Your task to perform on an android device: change alarm snooze length Image 0: 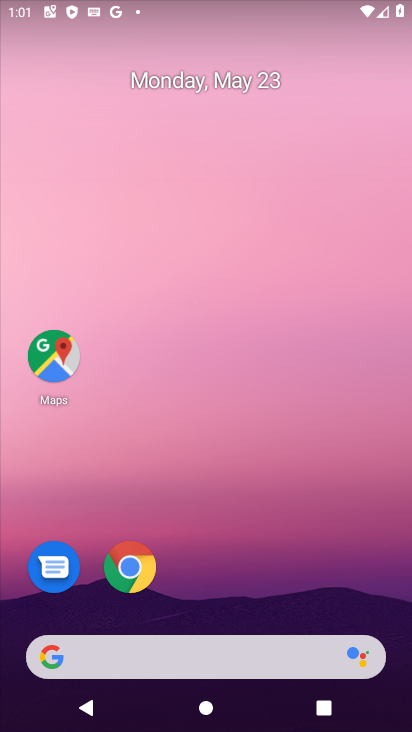
Step 0: drag from (232, 605) to (194, 24)
Your task to perform on an android device: change alarm snooze length Image 1: 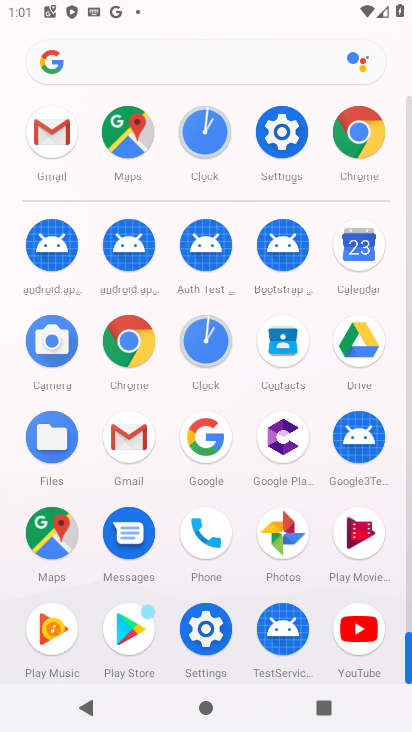
Step 1: click (211, 142)
Your task to perform on an android device: change alarm snooze length Image 2: 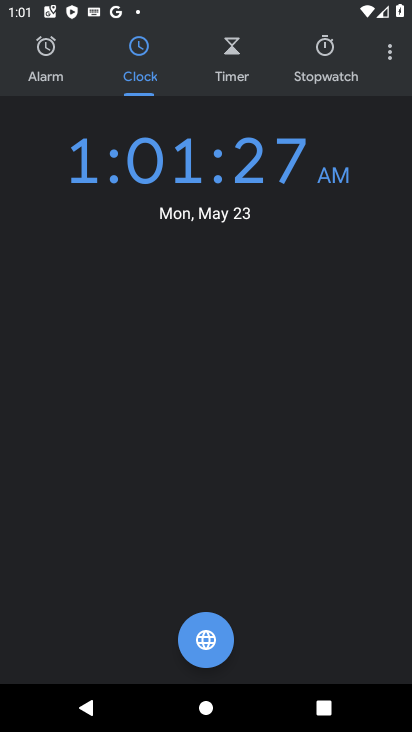
Step 2: click (403, 63)
Your task to perform on an android device: change alarm snooze length Image 3: 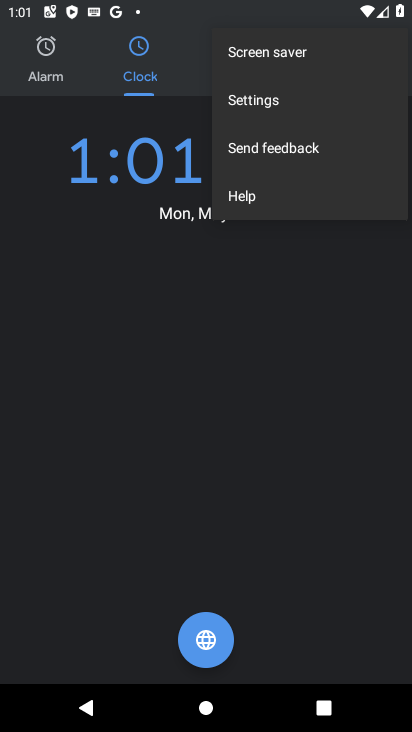
Step 3: click (319, 109)
Your task to perform on an android device: change alarm snooze length Image 4: 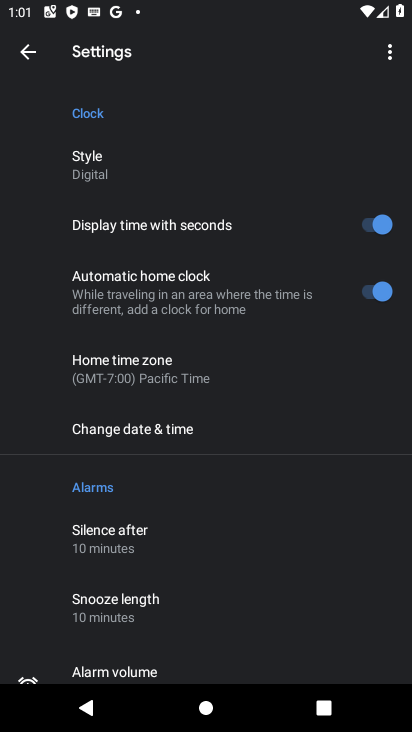
Step 4: click (218, 601)
Your task to perform on an android device: change alarm snooze length Image 5: 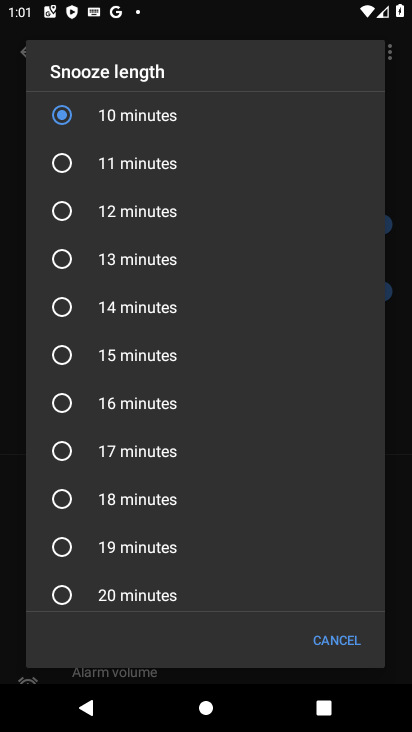
Step 5: click (163, 546)
Your task to perform on an android device: change alarm snooze length Image 6: 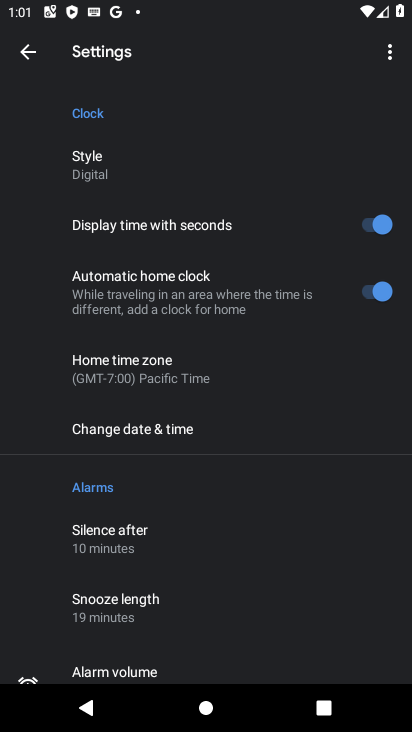
Step 6: task complete